Your task to perform on an android device: toggle show notifications on the lock screen Image 0: 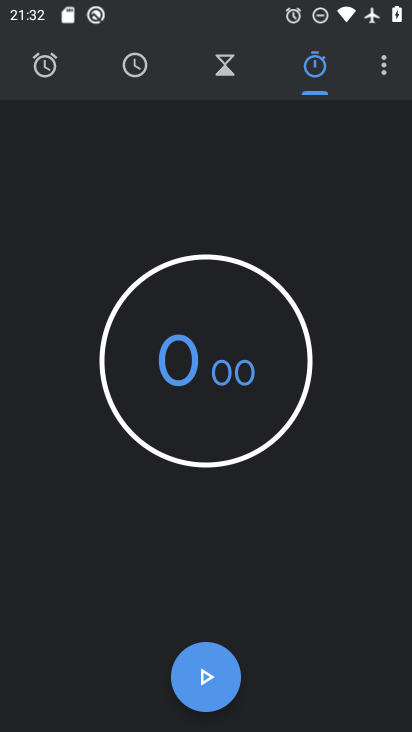
Step 0: press home button
Your task to perform on an android device: toggle show notifications on the lock screen Image 1: 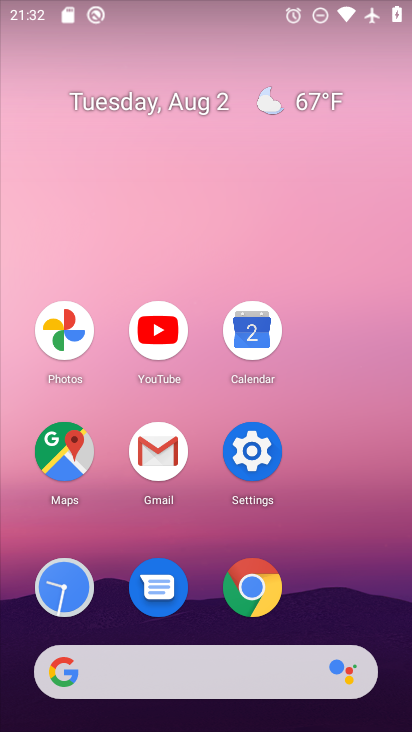
Step 1: click (251, 453)
Your task to perform on an android device: toggle show notifications on the lock screen Image 2: 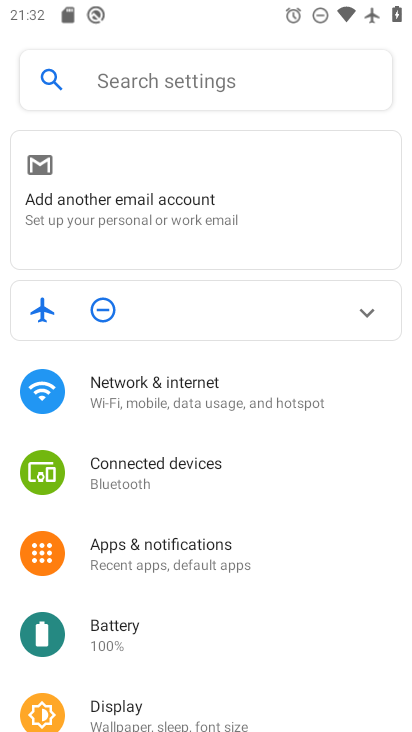
Step 2: drag from (231, 635) to (291, 313)
Your task to perform on an android device: toggle show notifications on the lock screen Image 3: 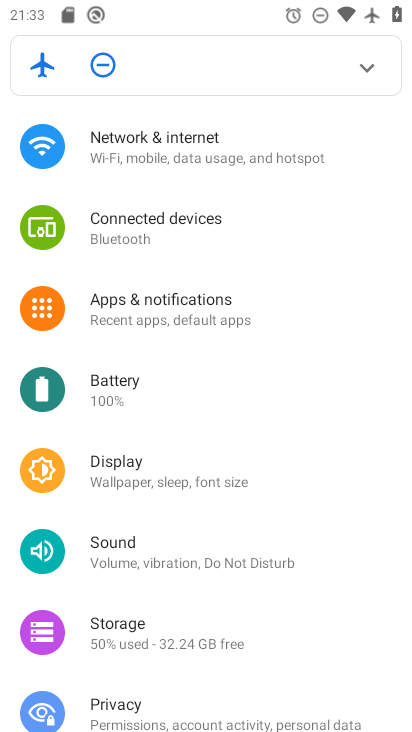
Step 3: click (163, 296)
Your task to perform on an android device: toggle show notifications on the lock screen Image 4: 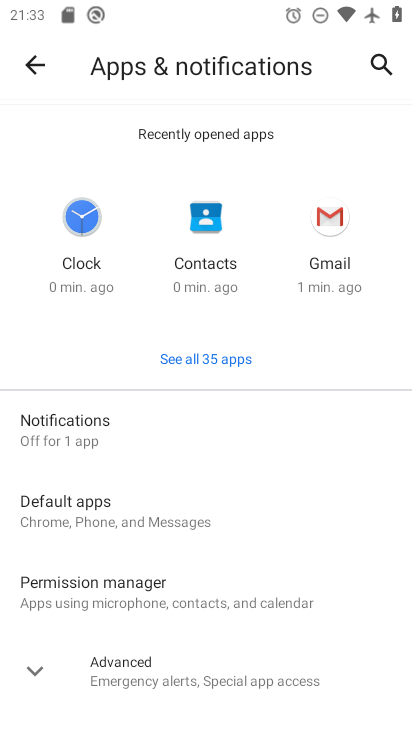
Step 4: drag from (230, 574) to (230, 336)
Your task to perform on an android device: toggle show notifications on the lock screen Image 5: 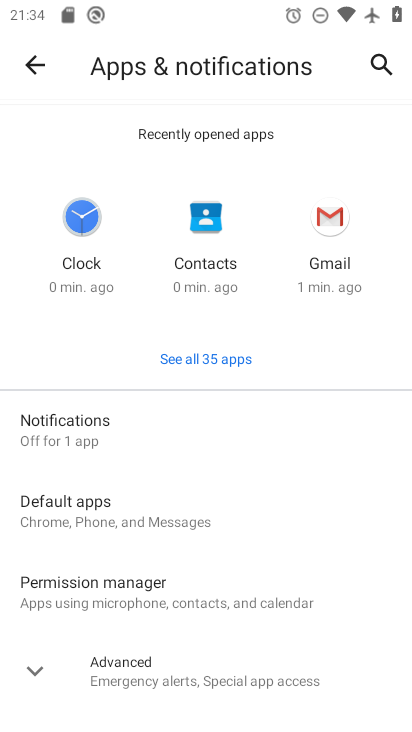
Step 5: click (71, 430)
Your task to perform on an android device: toggle show notifications on the lock screen Image 6: 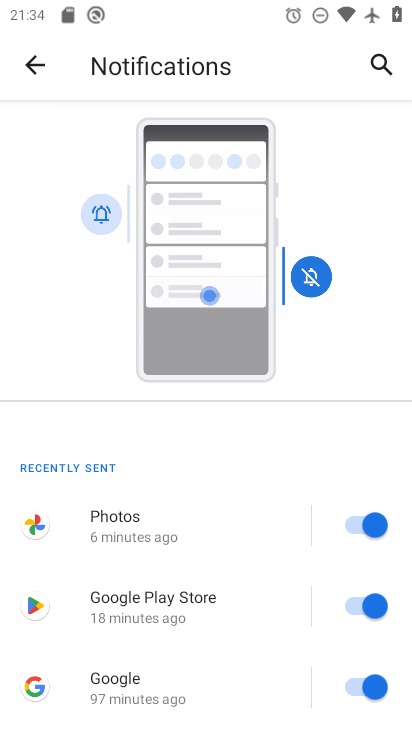
Step 6: drag from (237, 540) to (268, 196)
Your task to perform on an android device: toggle show notifications on the lock screen Image 7: 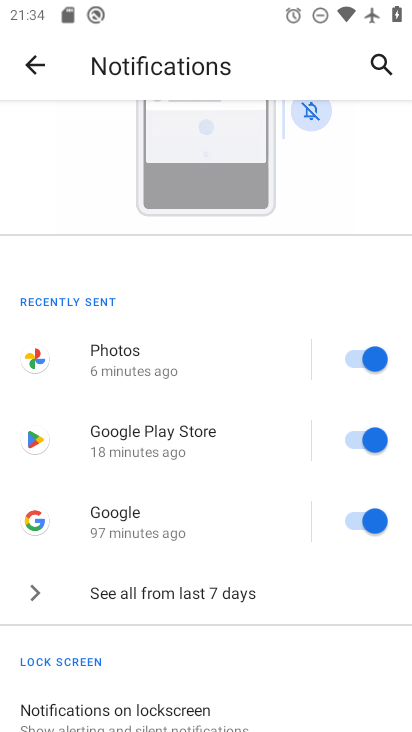
Step 7: drag from (221, 638) to (221, 329)
Your task to perform on an android device: toggle show notifications on the lock screen Image 8: 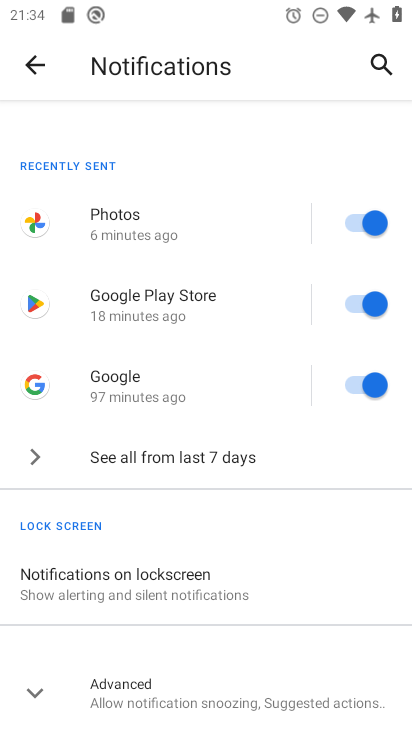
Step 8: click (98, 568)
Your task to perform on an android device: toggle show notifications on the lock screen Image 9: 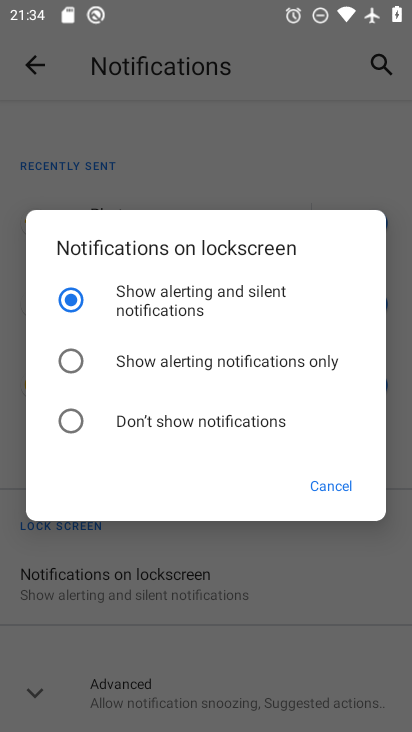
Step 9: click (72, 427)
Your task to perform on an android device: toggle show notifications on the lock screen Image 10: 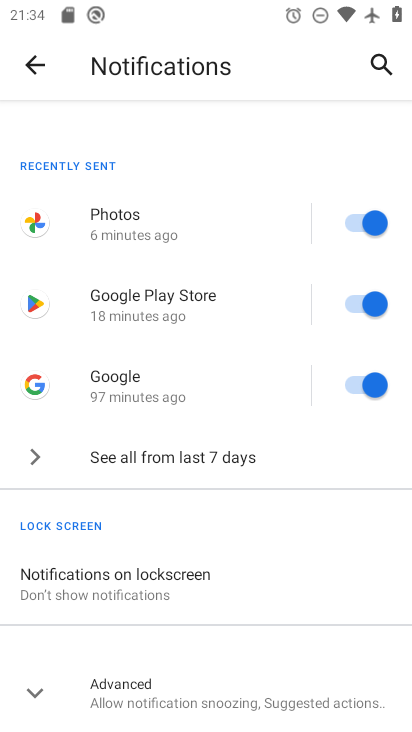
Step 10: task complete